Your task to perform on an android device: Open Wikipedia Image 0: 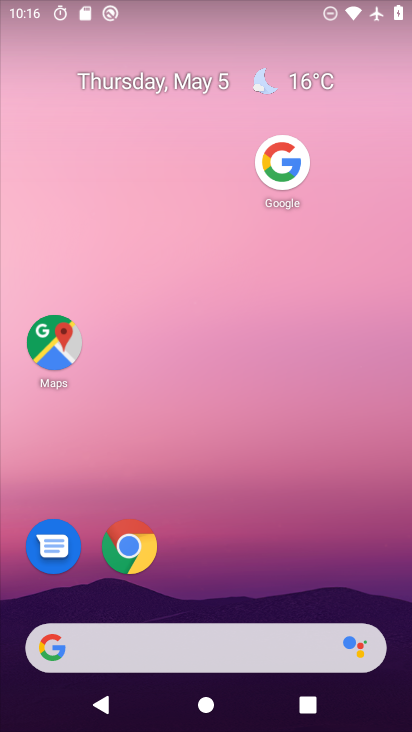
Step 0: drag from (211, 625) to (308, 115)
Your task to perform on an android device: Open Wikipedia Image 1: 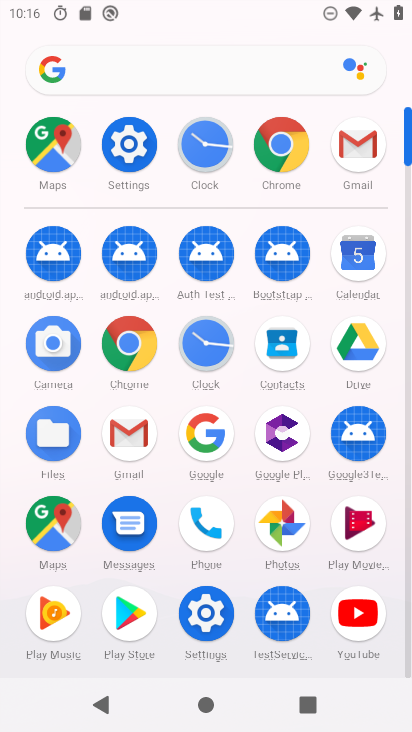
Step 1: click (272, 155)
Your task to perform on an android device: Open Wikipedia Image 2: 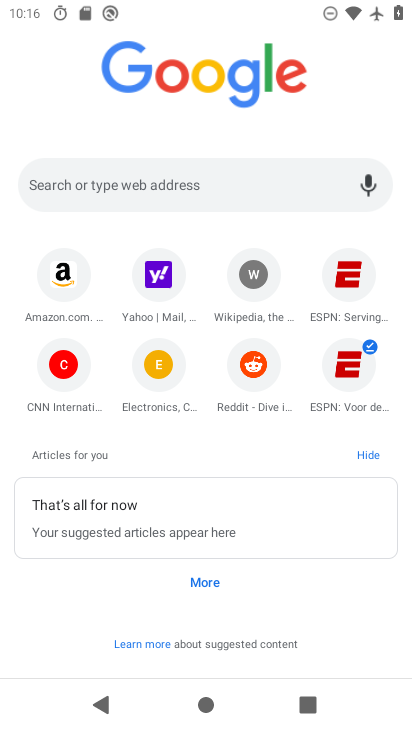
Step 2: click (258, 285)
Your task to perform on an android device: Open Wikipedia Image 3: 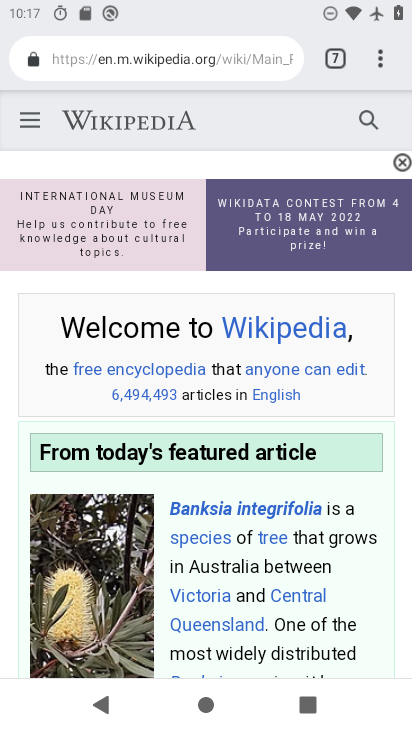
Step 3: task complete